Your task to perform on an android device: What's the weather today? Image 0: 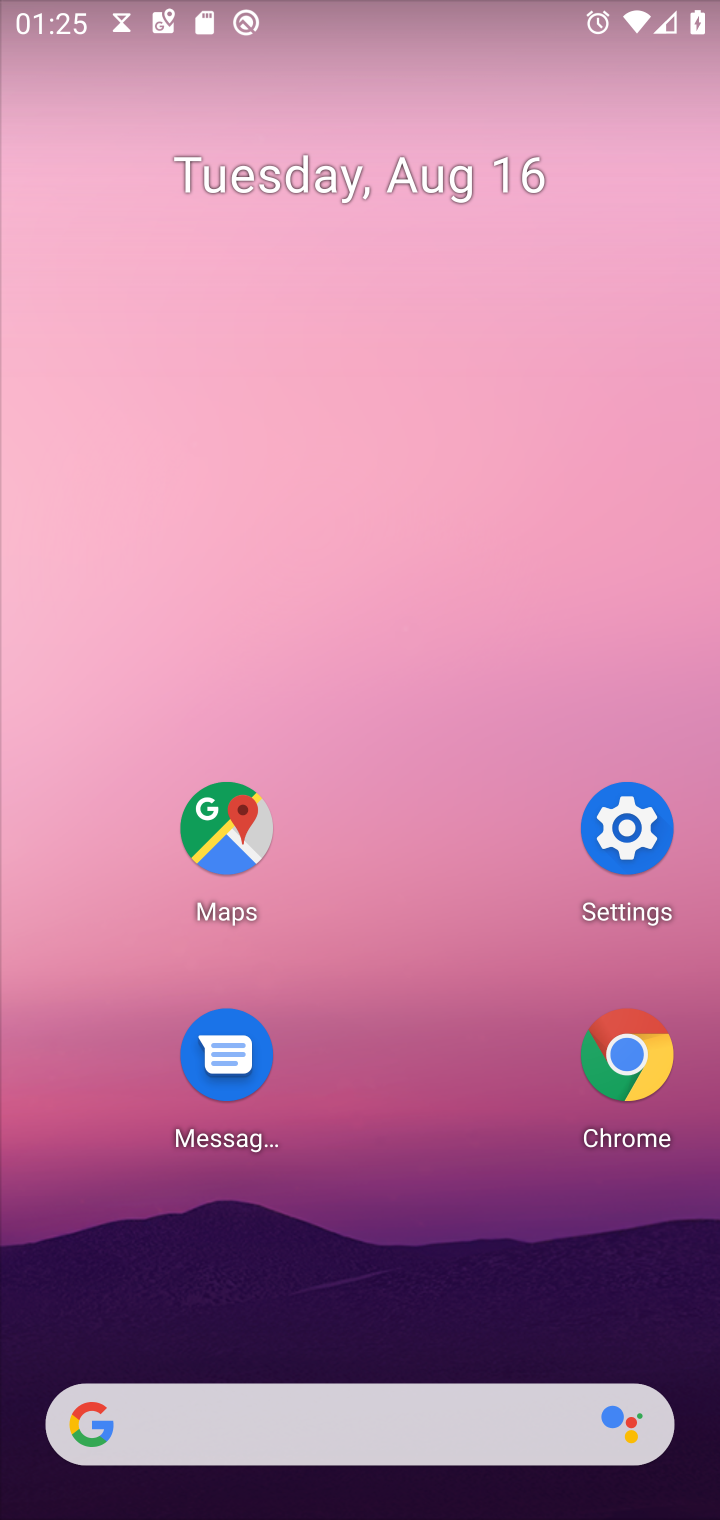
Step 0: click (238, 1406)
Your task to perform on an android device: What's the weather today? Image 1: 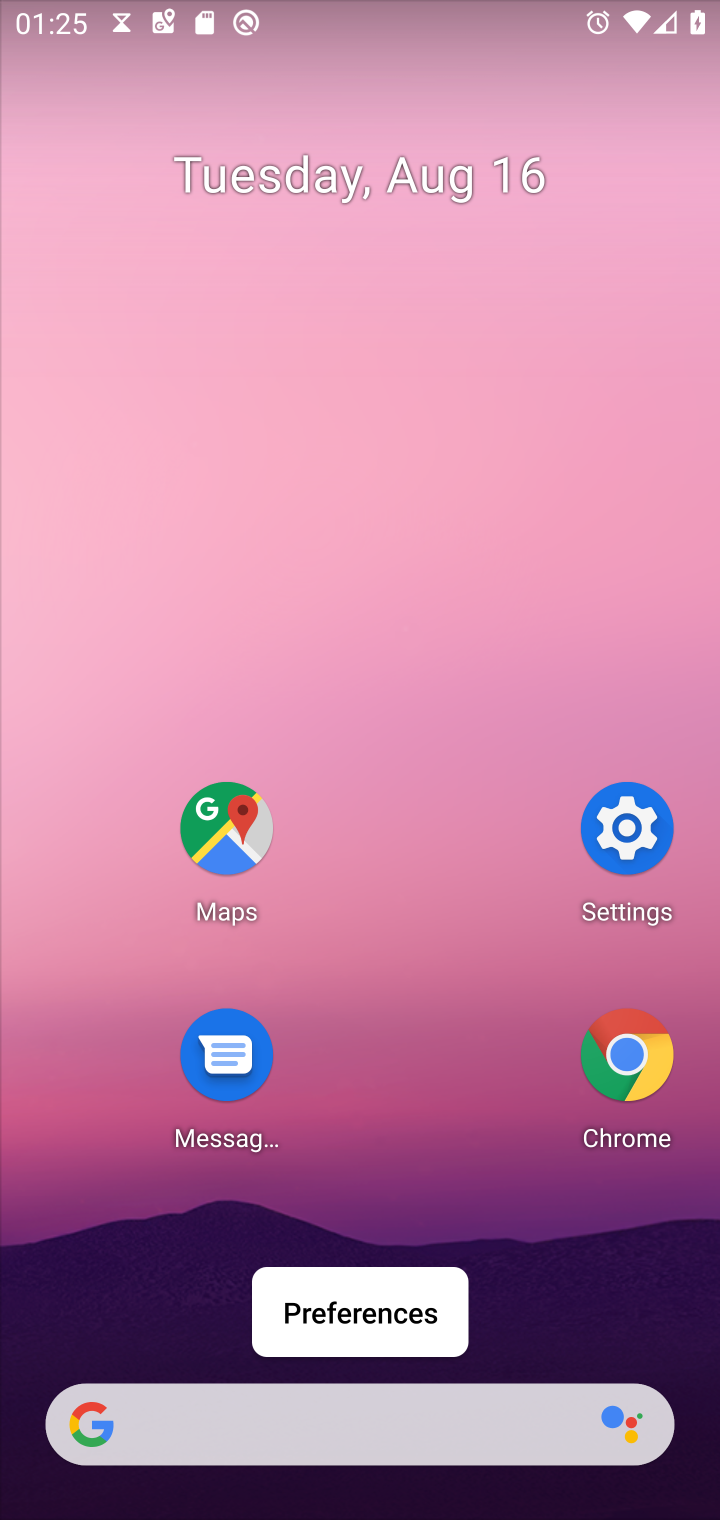
Step 1: click (256, 1408)
Your task to perform on an android device: What's the weather today? Image 2: 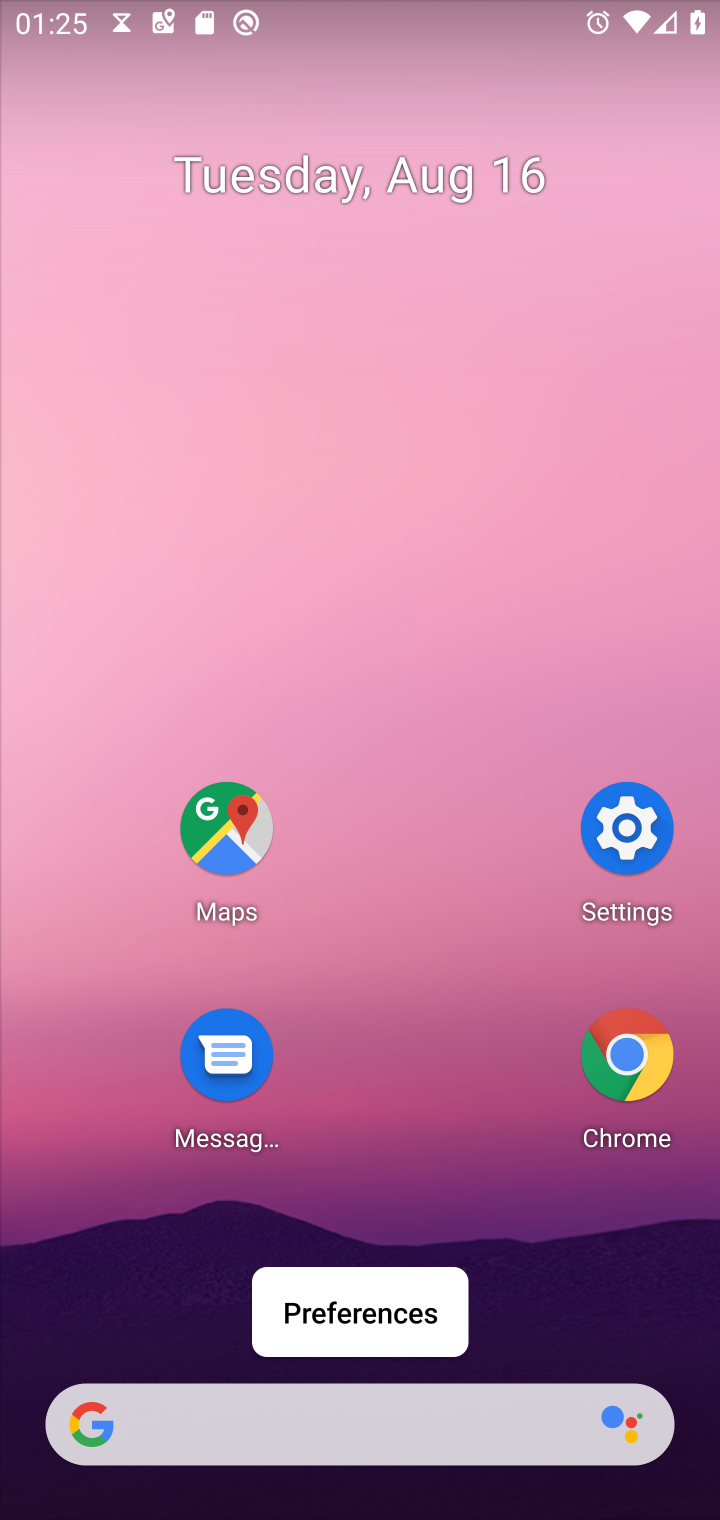
Step 2: click (265, 1412)
Your task to perform on an android device: What's the weather today? Image 3: 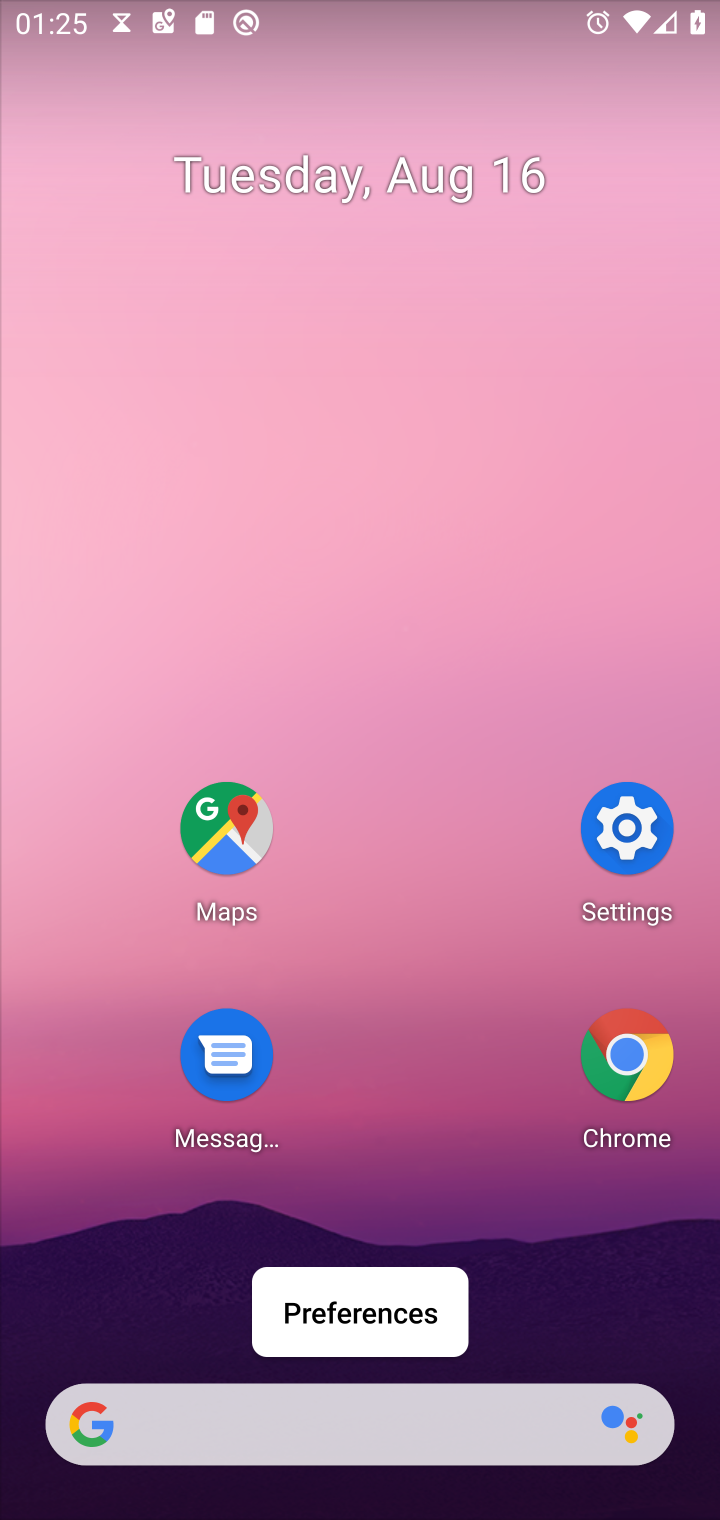
Step 3: click (315, 1446)
Your task to perform on an android device: What's the weather today? Image 4: 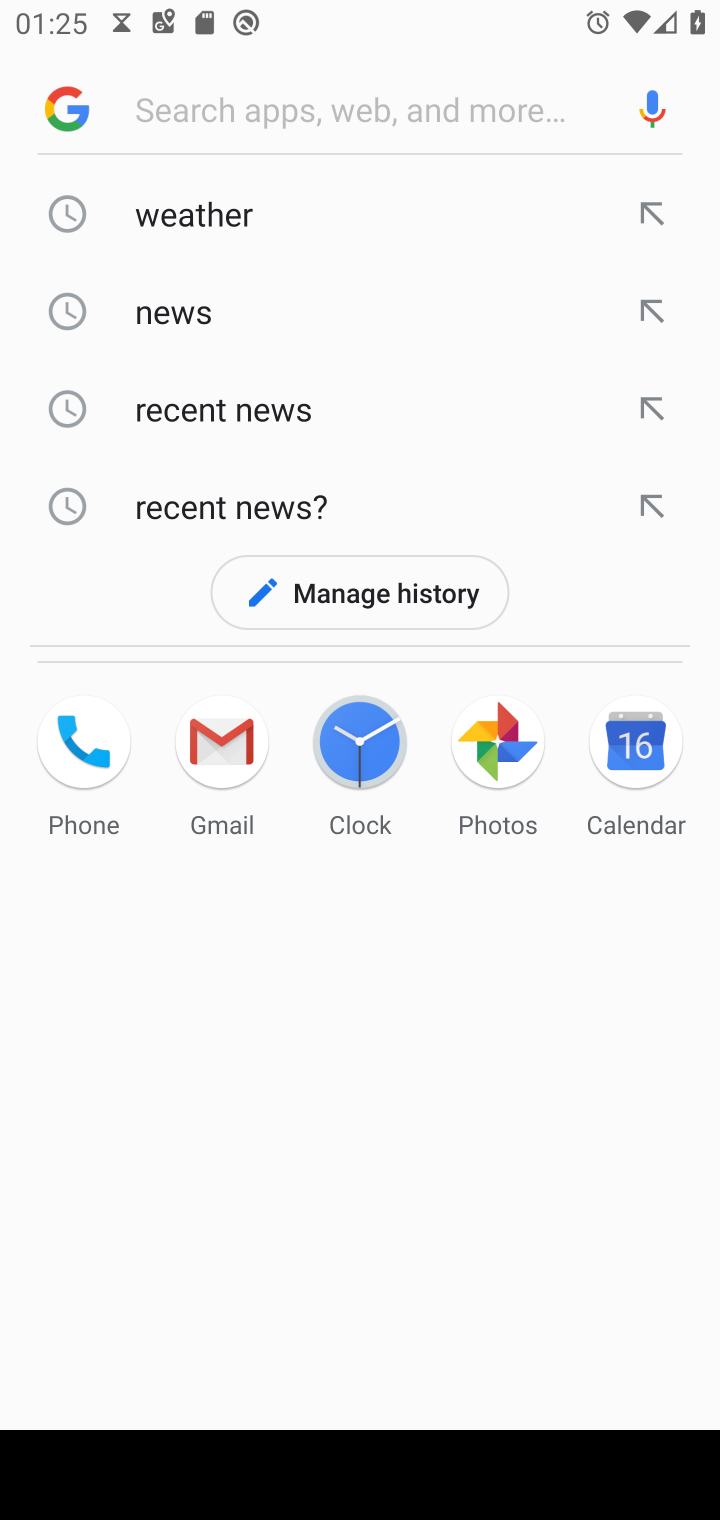
Step 4: click (169, 200)
Your task to perform on an android device: What's the weather today? Image 5: 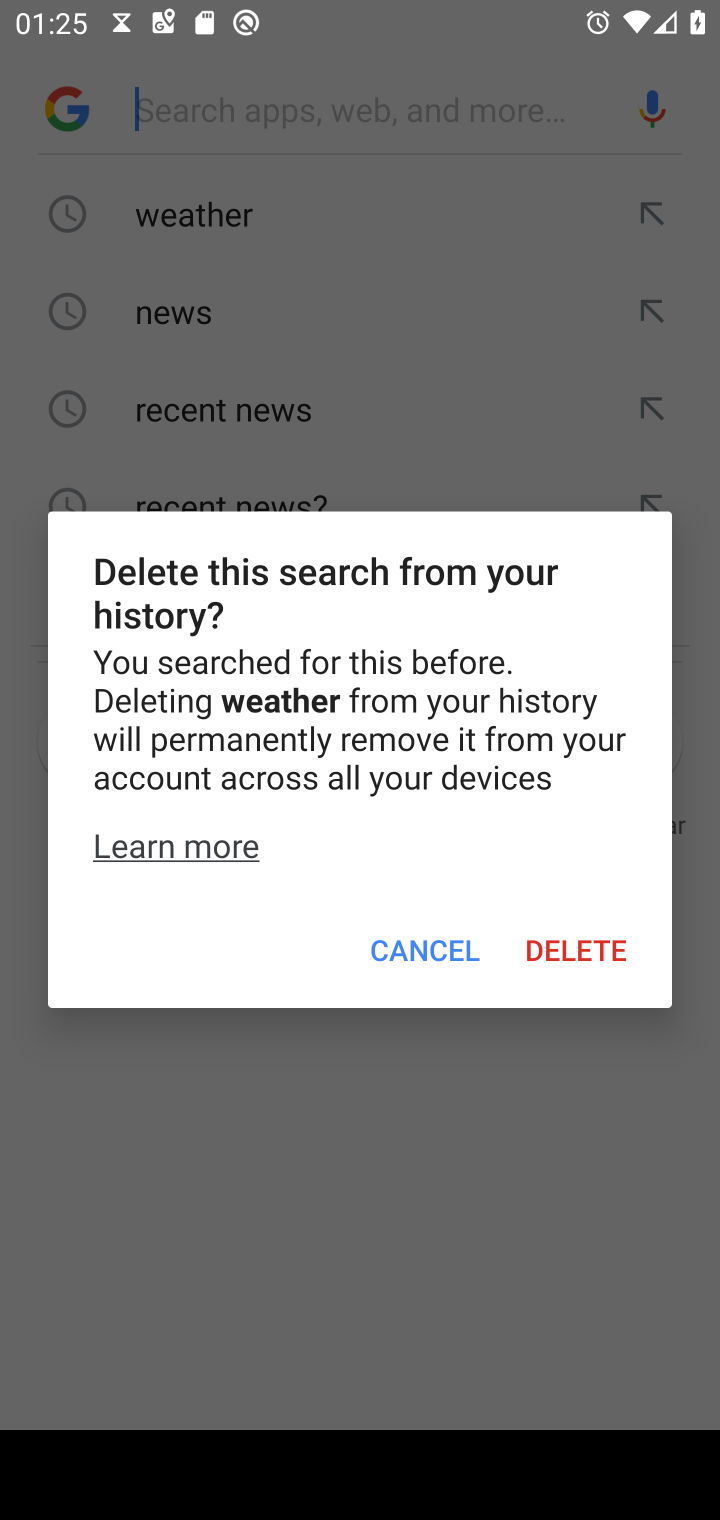
Step 5: click (439, 941)
Your task to perform on an android device: What's the weather today? Image 6: 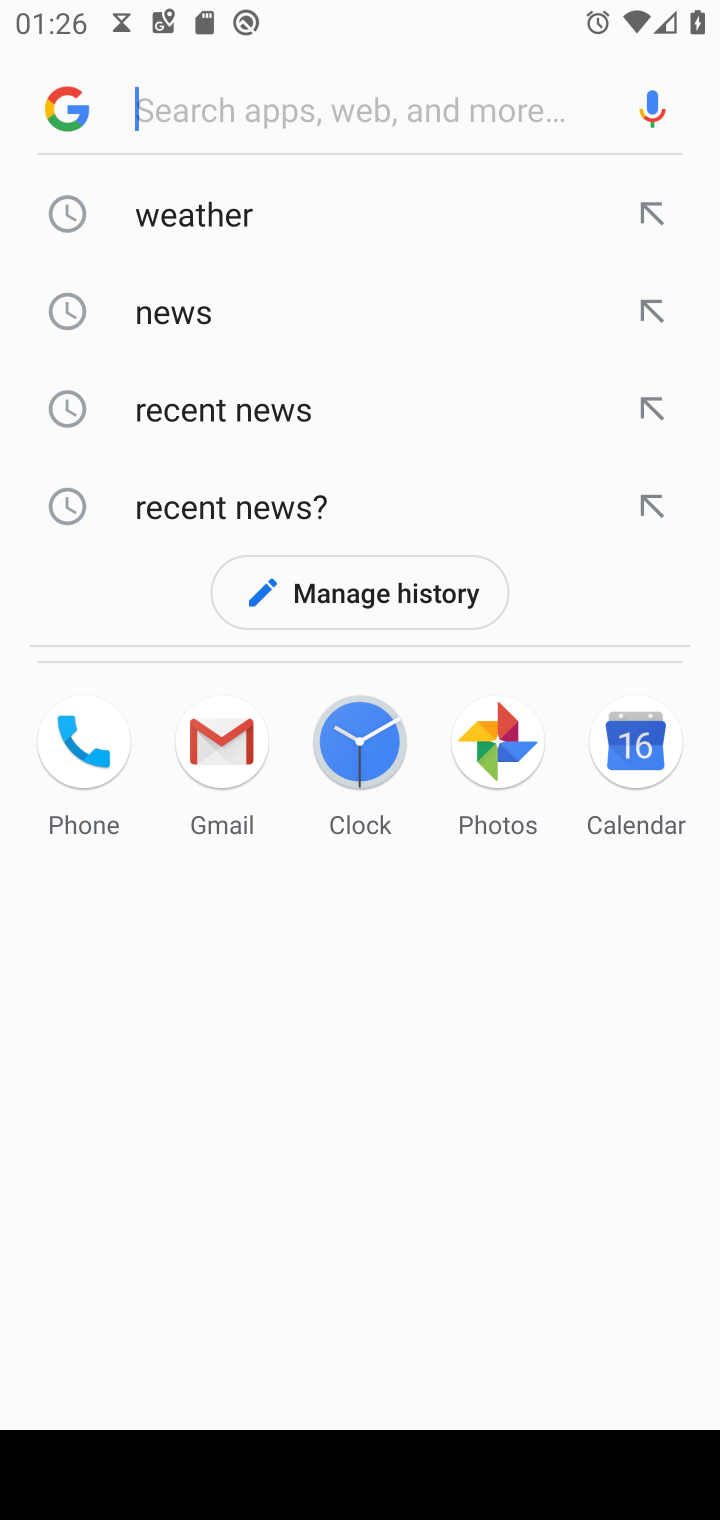
Step 6: click (201, 208)
Your task to perform on an android device: What's the weather today? Image 7: 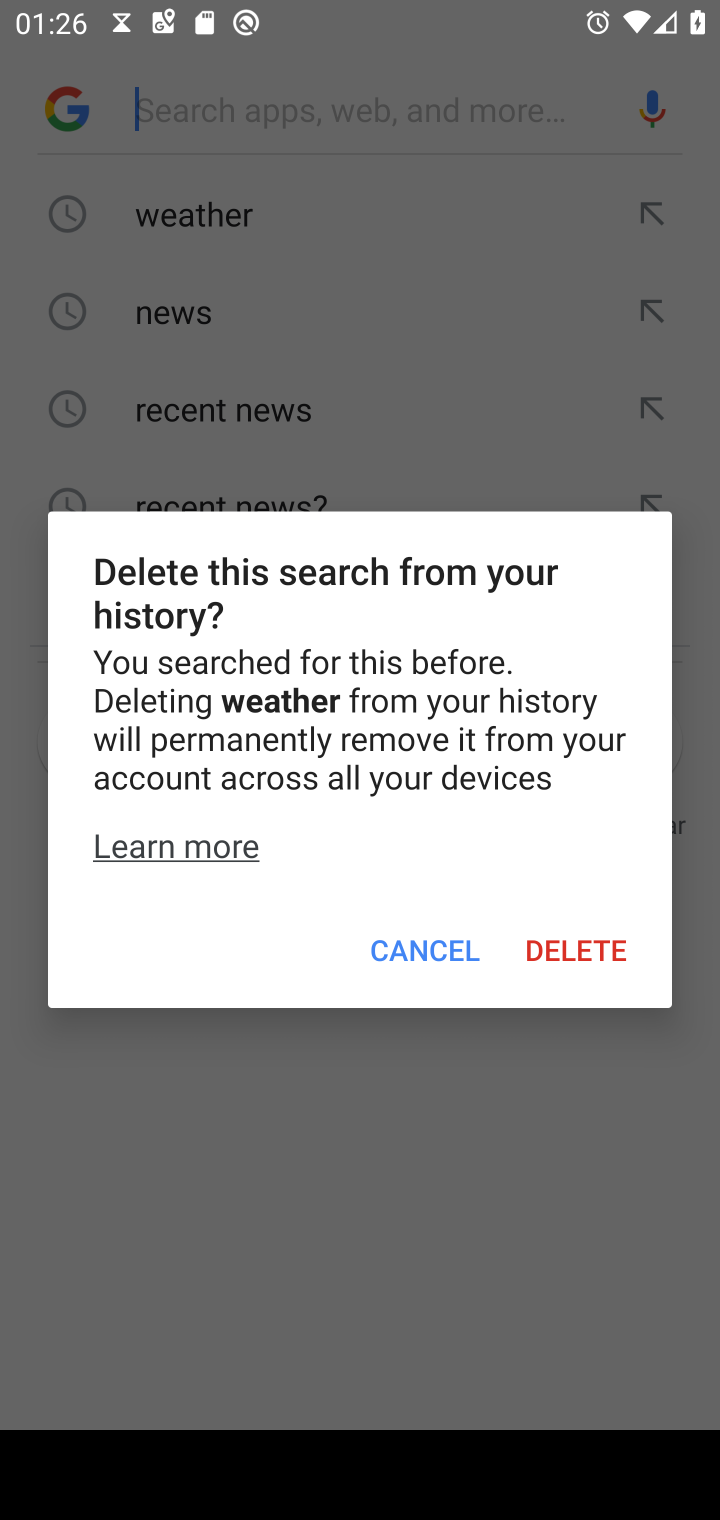
Step 7: click (413, 962)
Your task to perform on an android device: What's the weather today? Image 8: 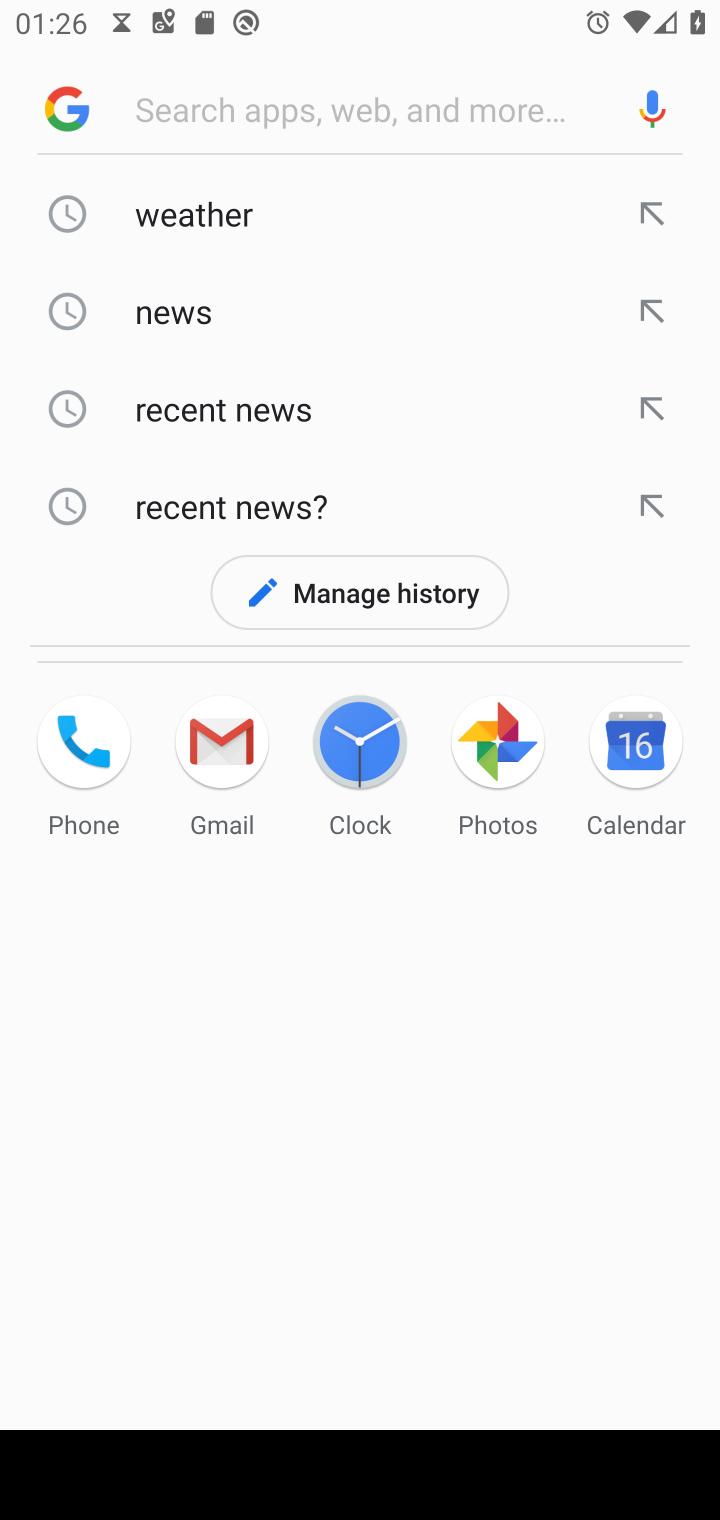
Step 8: click (250, 210)
Your task to perform on an android device: What's the weather today? Image 9: 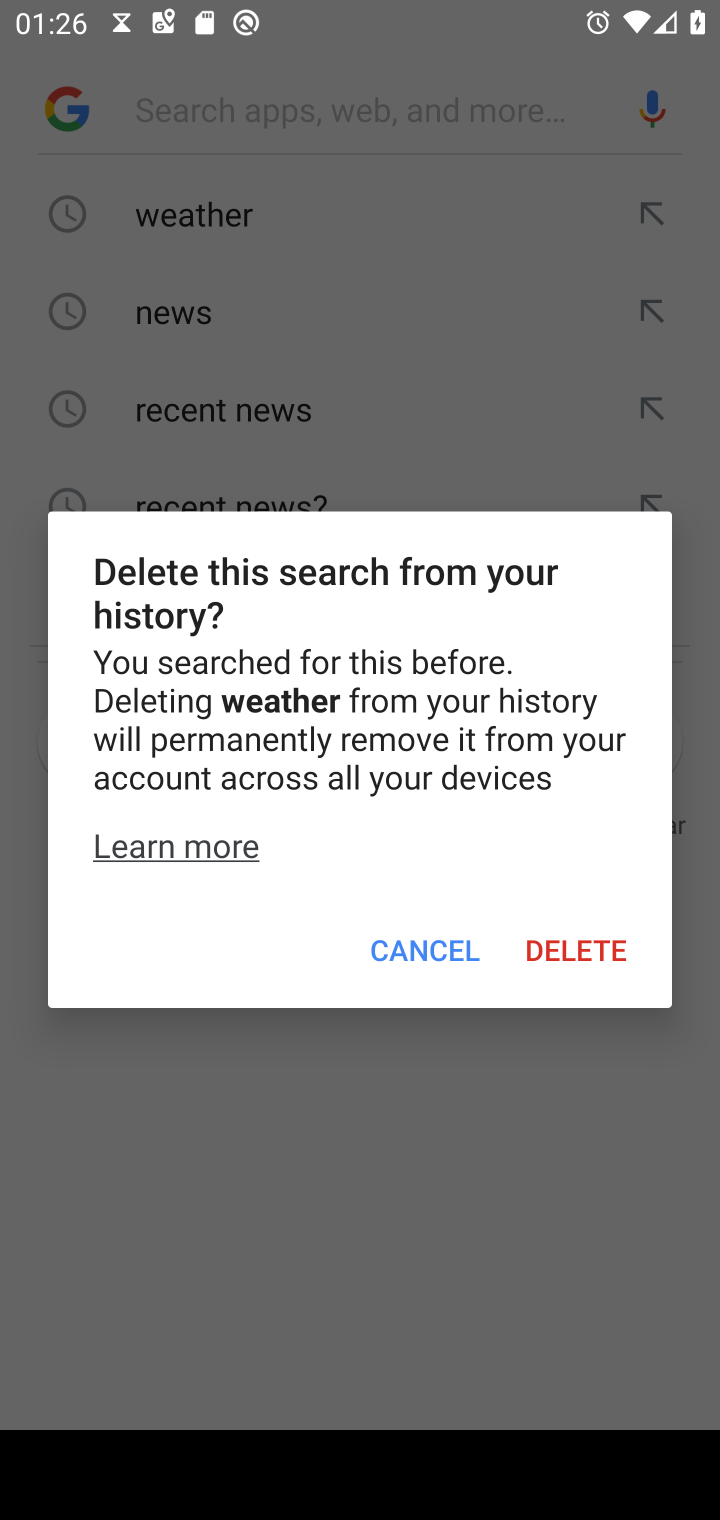
Step 9: click (441, 954)
Your task to perform on an android device: What's the weather today? Image 10: 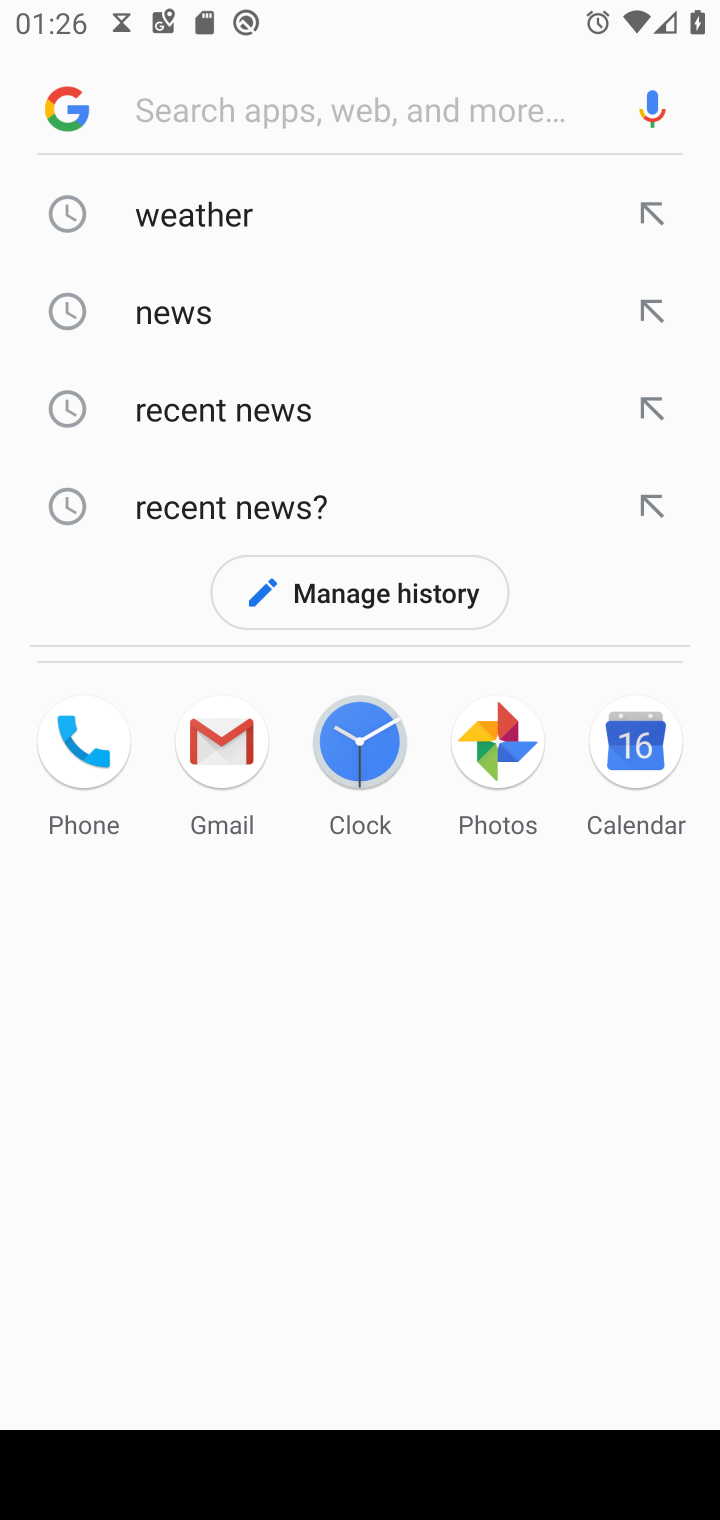
Step 10: click (202, 215)
Your task to perform on an android device: What's the weather today? Image 11: 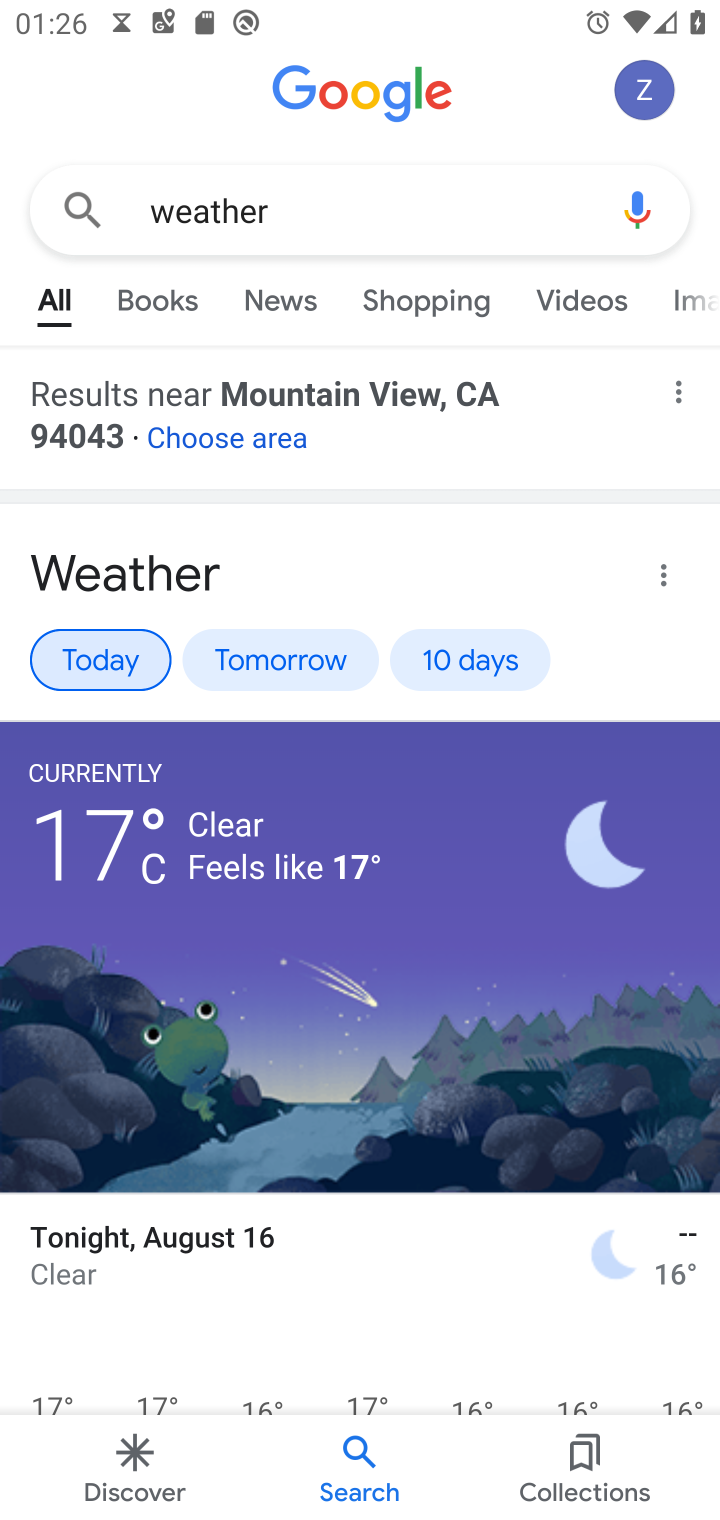
Step 11: task complete